Your task to perform on an android device: Check the news Image 0: 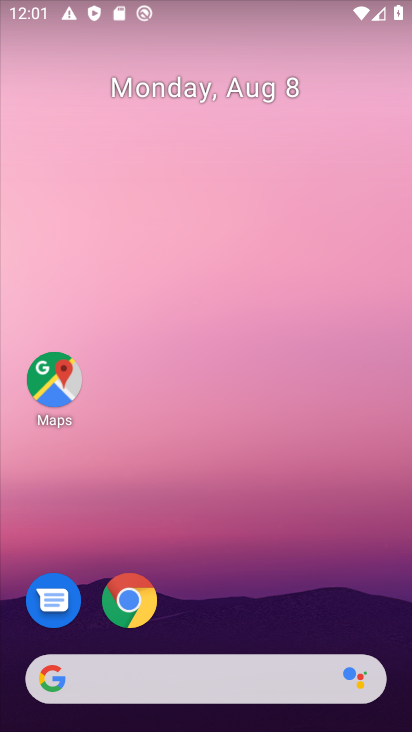
Step 0: drag from (269, 600) to (332, 183)
Your task to perform on an android device: Check the news Image 1: 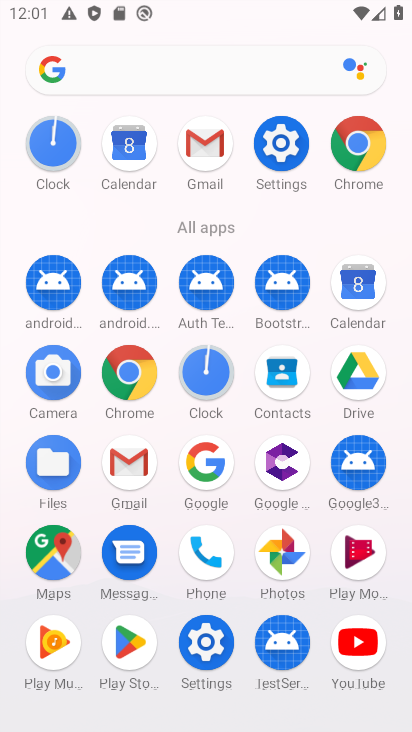
Step 1: click (184, 446)
Your task to perform on an android device: Check the news Image 2: 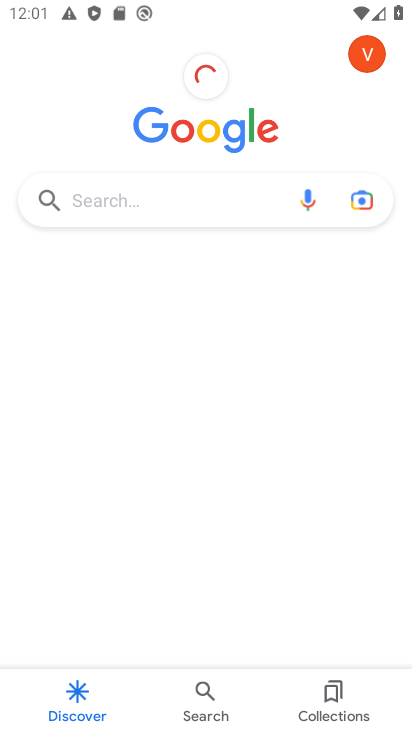
Step 2: click (141, 217)
Your task to perform on an android device: Check the news Image 3: 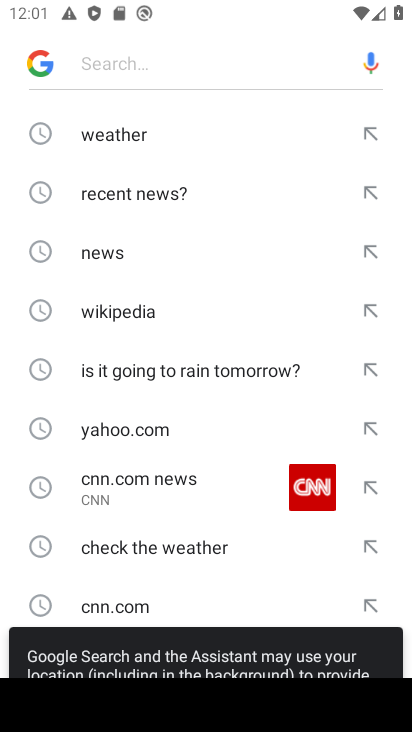
Step 3: click (100, 266)
Your task to perform on an android device: Check the news Image 4: 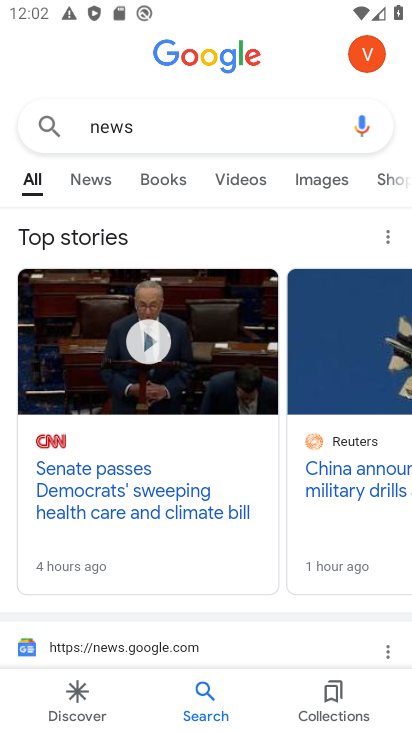
Step 4: click (63, 185)
Your task to perform on an android device: Check the news Image 5: 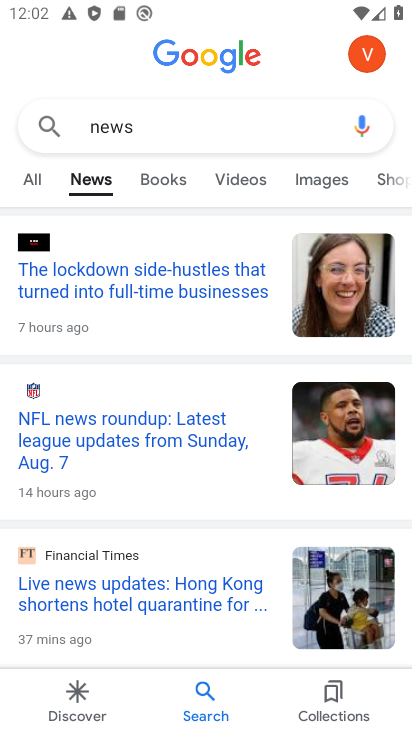
Step 5: task complete